Your task to perform on an android device: change the clock style Image 0: 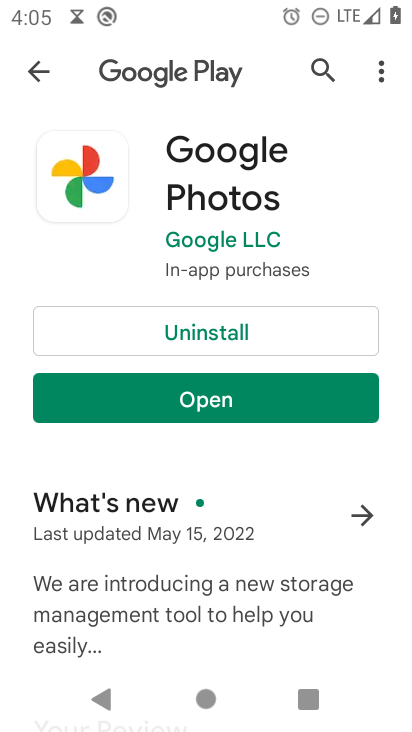
Step 0: press home button
Your task to perform on an android device: change the clock style Image 1: 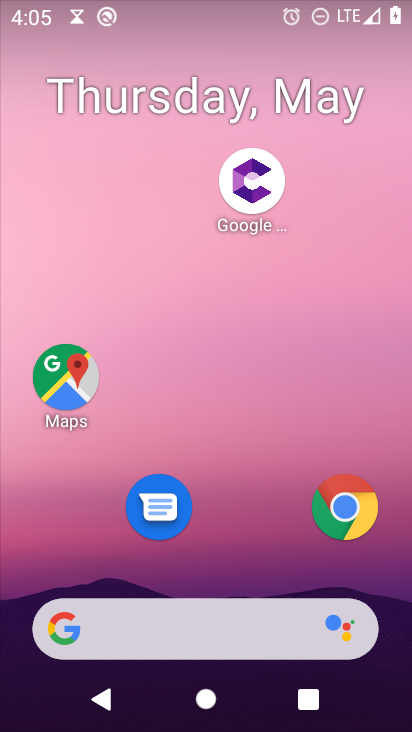
Step 1: drag from (259, 596) to (254, 10)
Your task to perform on an android device: change the clock style Image 2: 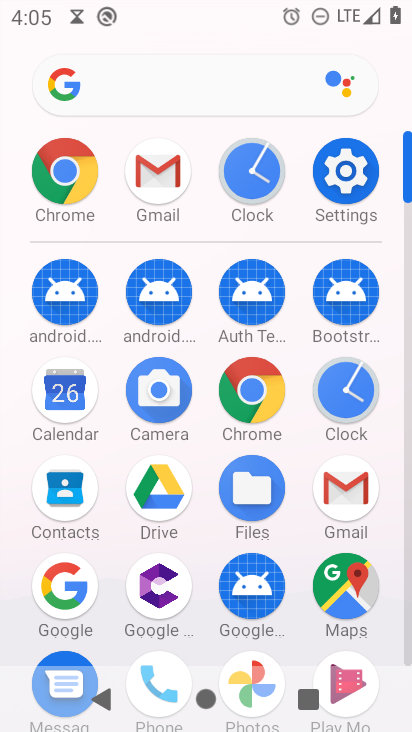
Step 2: click (251, 187)
Your task to perform on an android device: change the clock style Image 3: 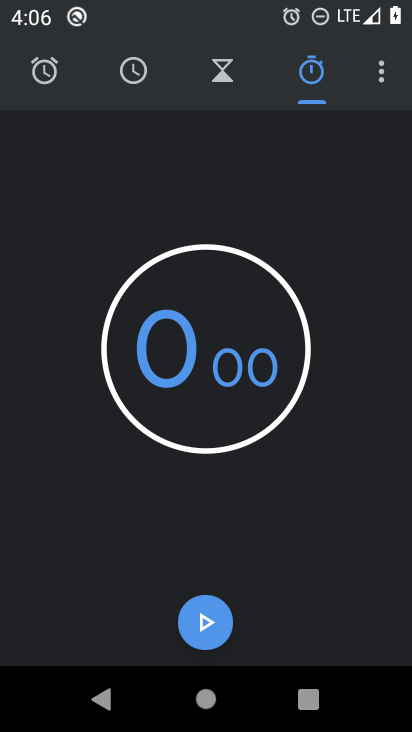
Step 3: click (383, 65)
Your task to perform on an android device: change the clock style Image 4: 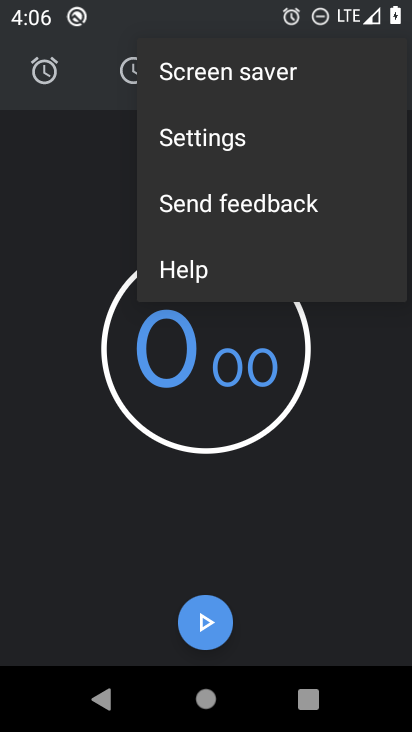
Step 4: click (211, 126)
Your task to perform on an android device: change the clock style Image 5: 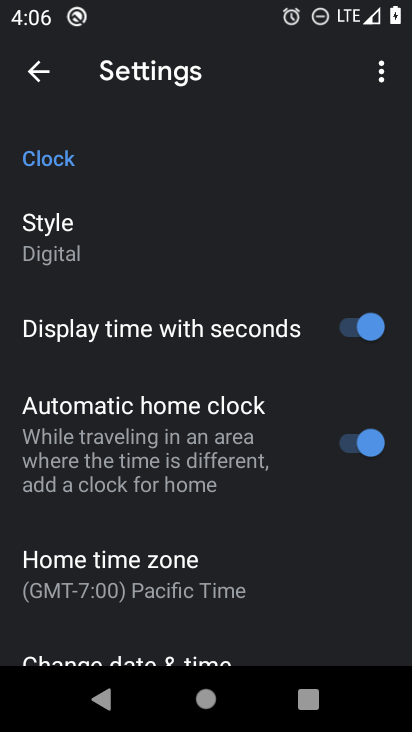
Step 5: click (59, 223)
Your task to perform on an android device: change the clock style Image 6: 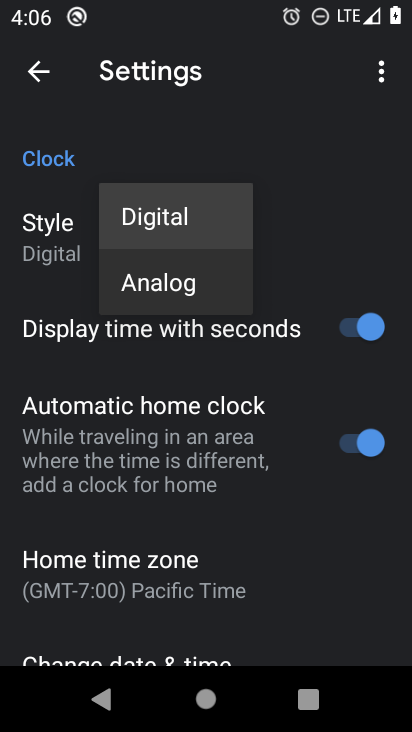
Step 6: click (163, 289)
Your task to perform on an android device: change the clock style Image 7: 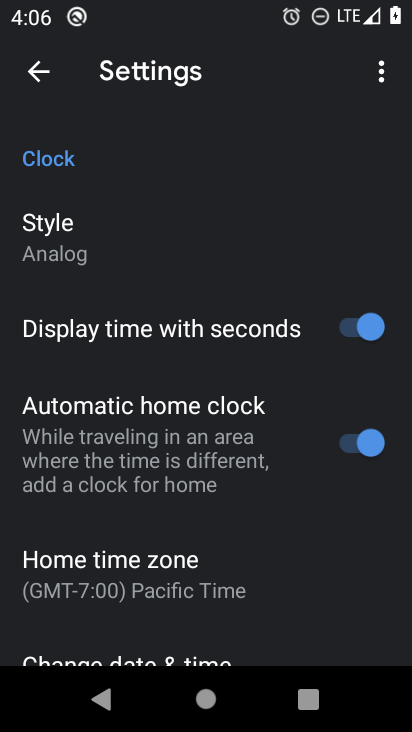
Step 7: task complete